Your task to perform on an android device: see tabs open on other devices in the chrome app Image 0: 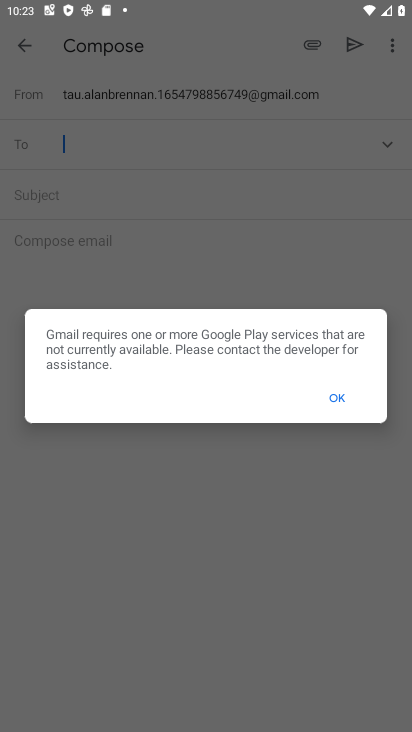
Step 0: press home button
Your task to perform on an android device: see tabs open on other devices in the chrome app Image 1: 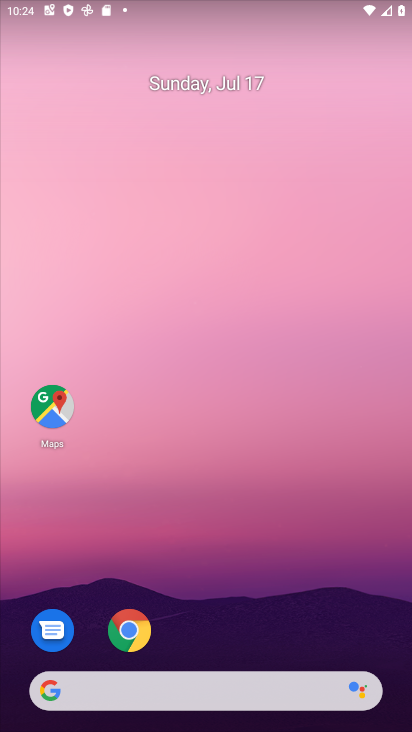
Step 1: drag from (310, 641) to (277, 212)
Your task to perform on an android device: see tabs open on other devices in the chrome app Image 2: 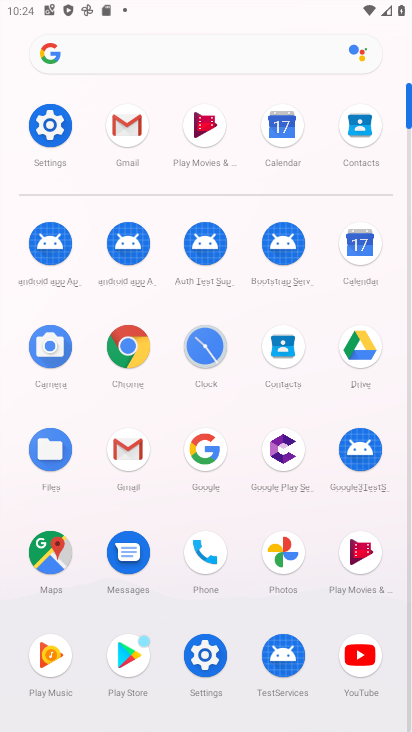
Step 2: click (124, 362)
Your task to perform on an android device: see tabs open on other devices in the chrome app Image 3: 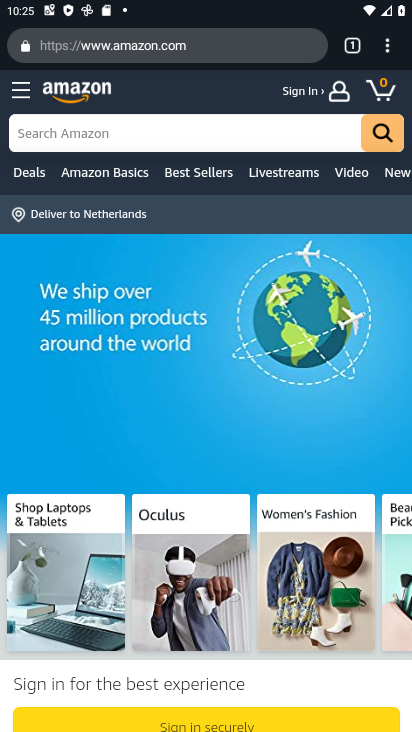
Step 3: click (394, 46)
Your task to perform on an android device: see tabs open on other devices in the chrome app Image 4: 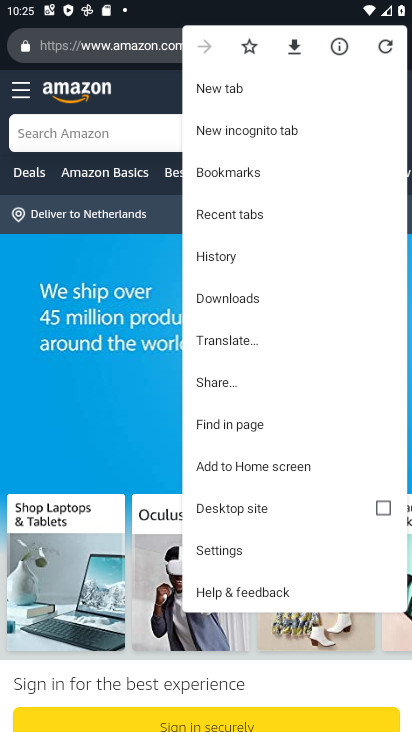
Step 4: click (263, 538)
Your task to perform on an android device: see tabs open on other devices in the chrome app Image 5: 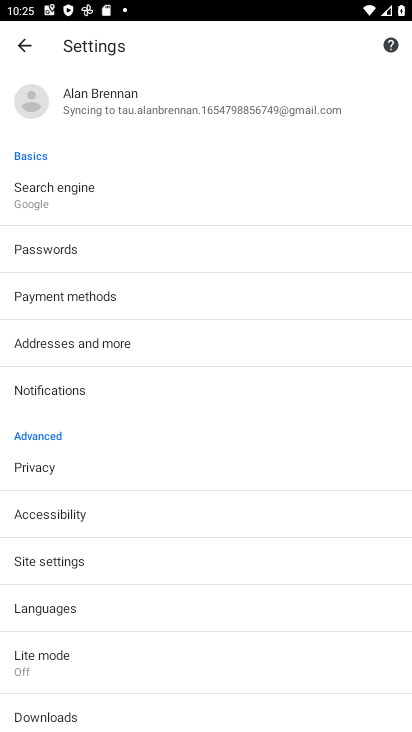
Step 5: click (91, 543)
Your task to perform on an android device: see tabs open on other devices in the chrome app Image 6: 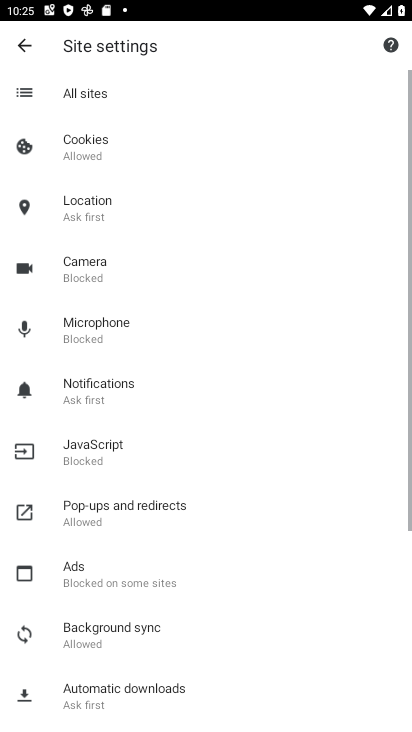
Step 6: task complete